Your task to perform on an android device: Open display settings Image 0: 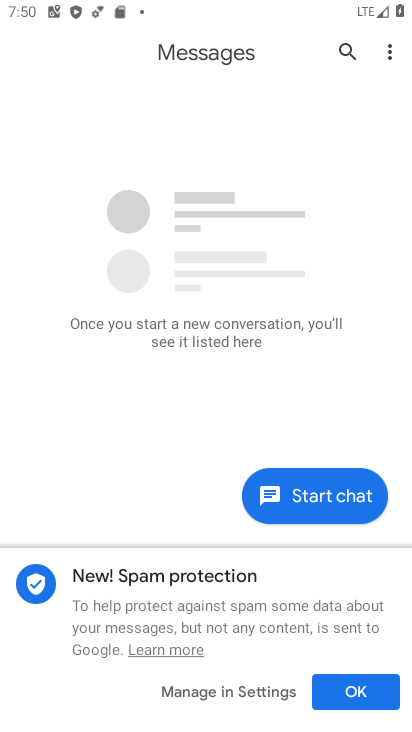
Step 0: press home button
Your task to perform on an android device: Open display settings Image 1: 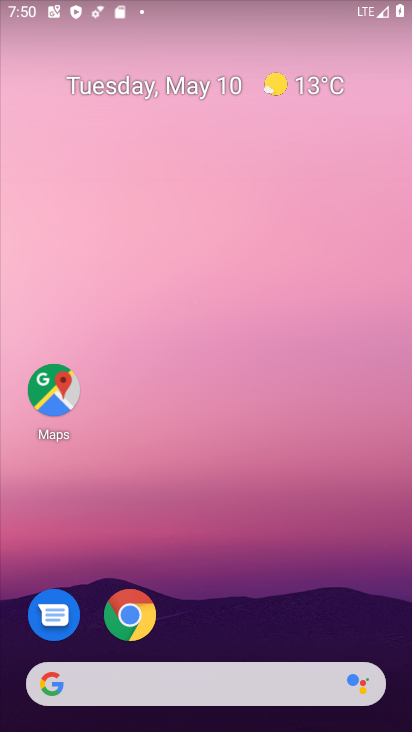
Step 1: drag from (266, 571) to (354, 60)
Your task to perform on an android device: Open display settings Image 2: 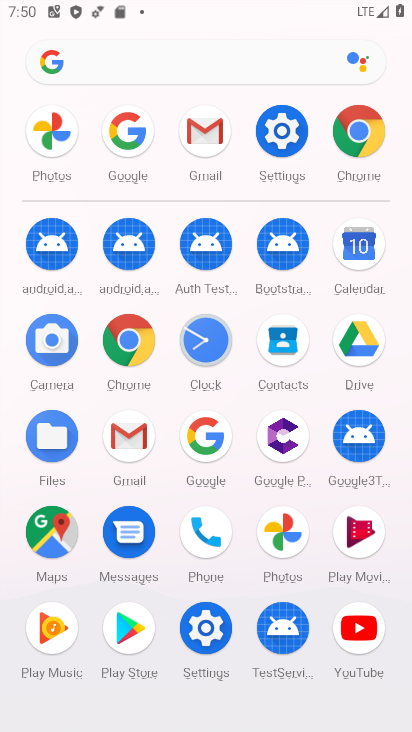
Step 2: click (281, 124)
Your task to perform on an android device: Open display settings Image 3: 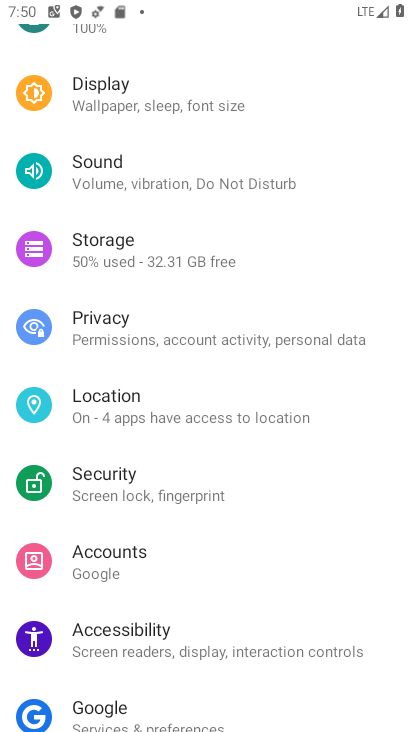
Step 3: click (133, 104)
Your task to perform on an android device: Open display settings Image 4: 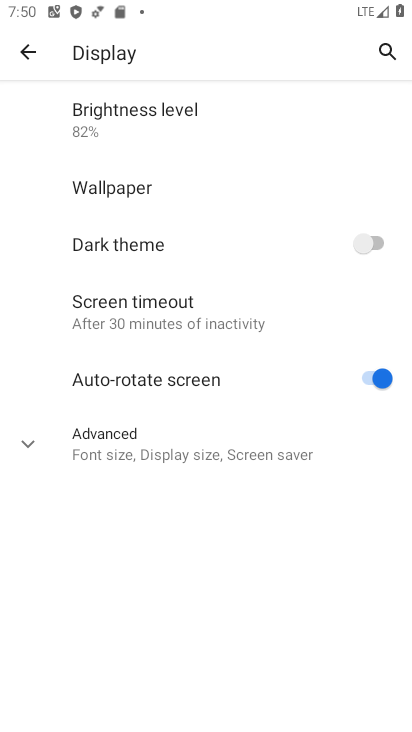
Step 4: task complete